Your task to perform on an android device: Open Google Image 0: 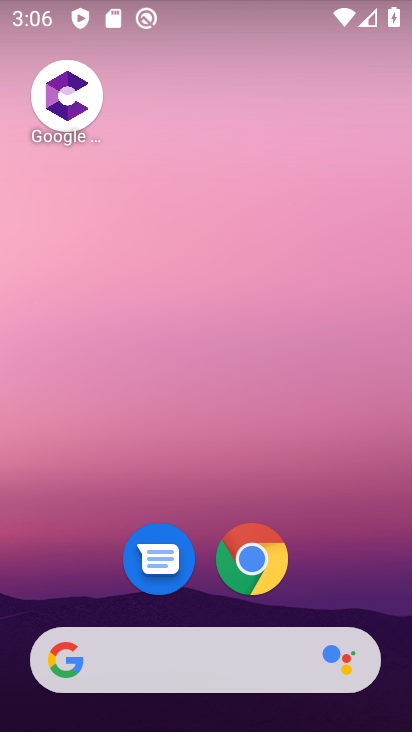
Step 0: drag from (96, 610) to (215, 165)
Your task to perform on an android device: Open Google Image 1: 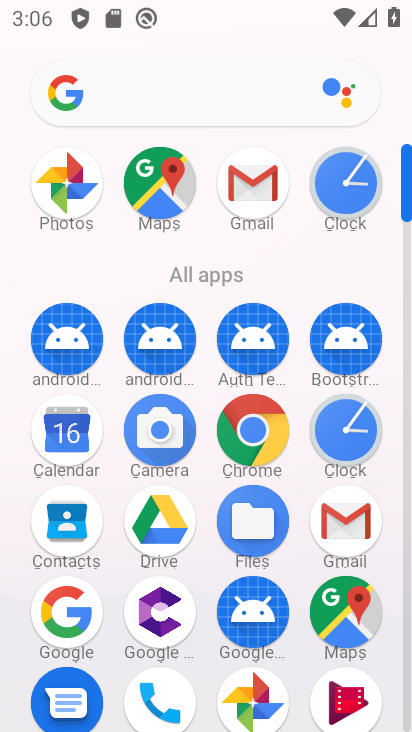
Step 1: drag from (205, 696) to (229, 529)
Your task to perform on an android device: Open Google Image 2: 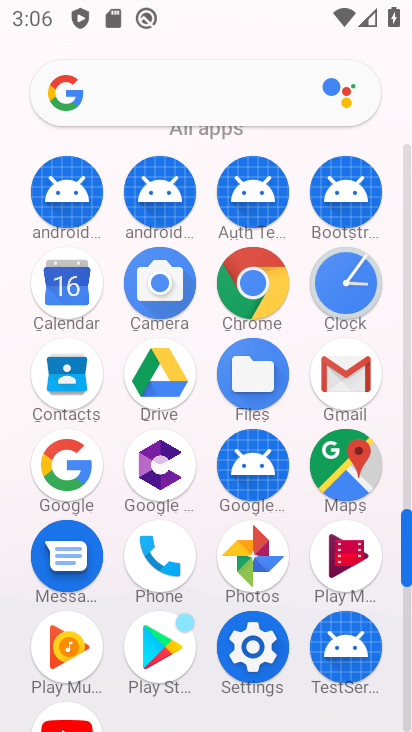
Step 2: click (63, 474)
Your task to perform on an android device: Open Google Image 3: 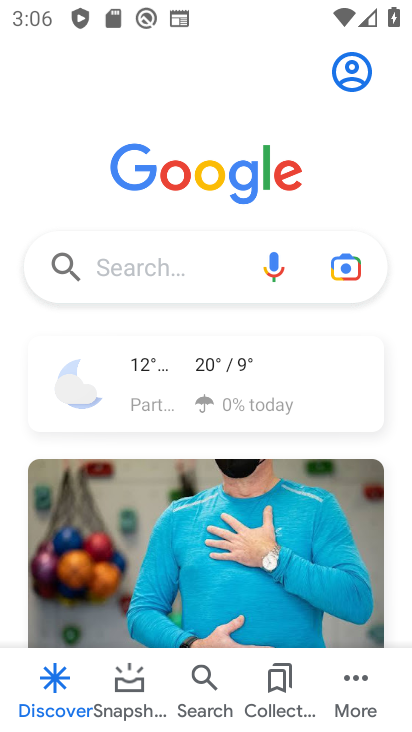
Step 3: task complete